Your task to perform on an android device: Go to Wikipedia Image 0: 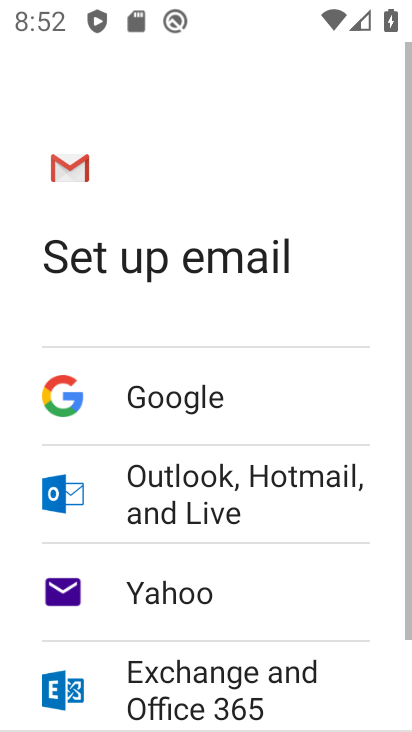
Step 0: press back button
Your task to perform on an android device: Go to Wikipedia Image 1: 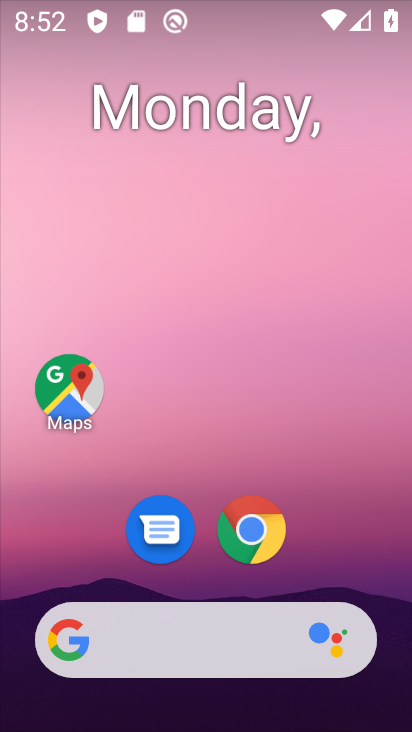
Step 1: drag from (321, 634) to (287, 131)
Your task to perform on an android device: Go to Wikipedia Image 2: 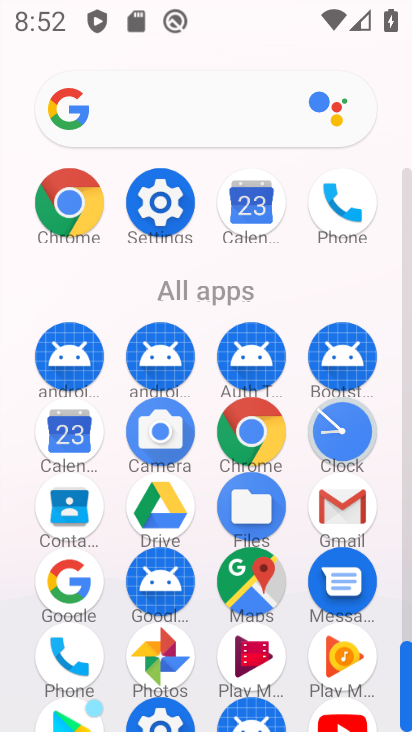
Step 2: click (66, 207)
Your task to perform on an android device: Go to Wikipedia Image 3: 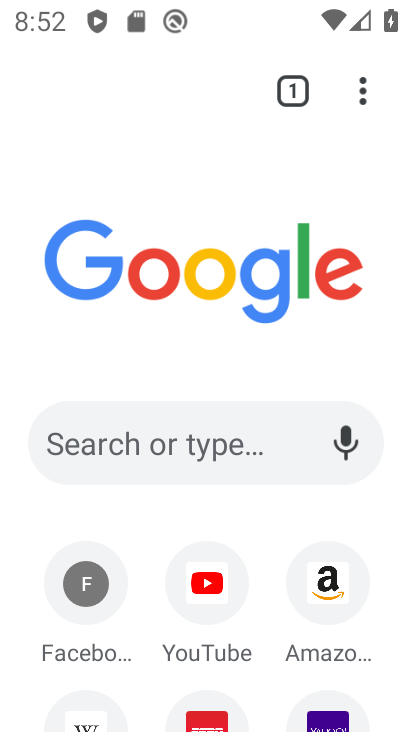
Step 3: drag from (223, 599) to (205, 199)
Your task to perform on an android device: Go to Wikipedia Image 4: 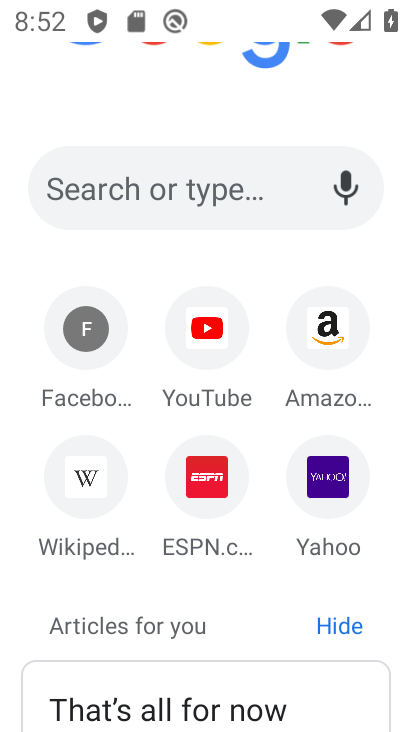
Step 4: drag from (214, 498) to (232, 94)
Your task to perform on an android device: Go to Wikipedia Image 5: 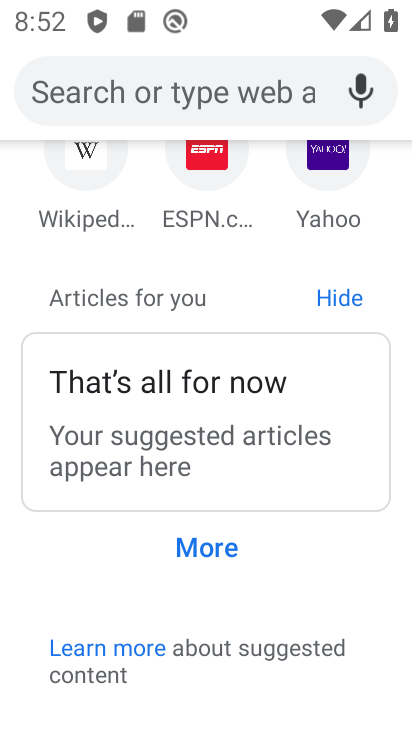
Step 5: click (87, 168)
Your task to perform on an android device: Go to Wikipedia Image 6: 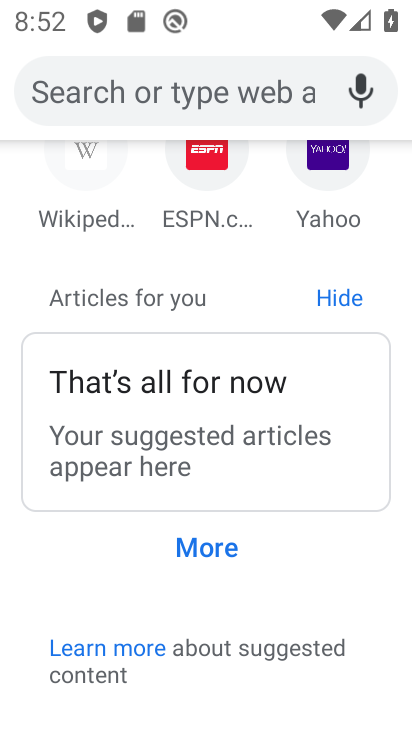
Step 6: click (87, 168)
Your task to perform on an android device: Go to Wikipedia Image 7: 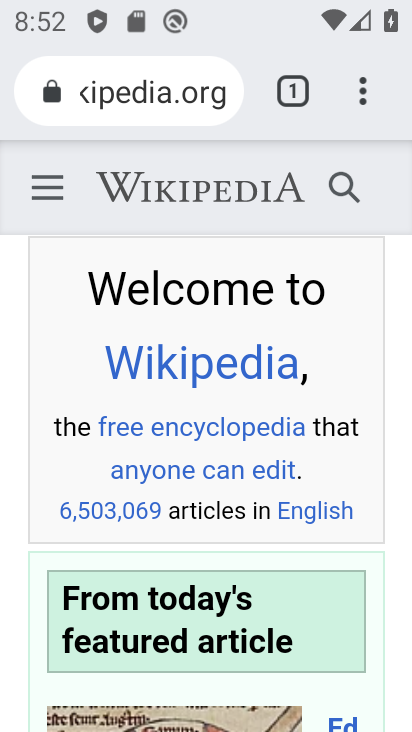
Step 7: task complete